Your task to perform on an android device: Open the map Image 0: 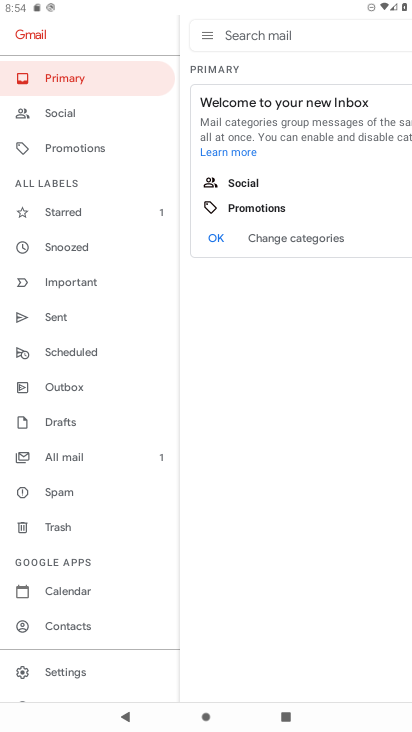
Step 0: press home button
Your task to perform on an android device: Open the map Image 1: 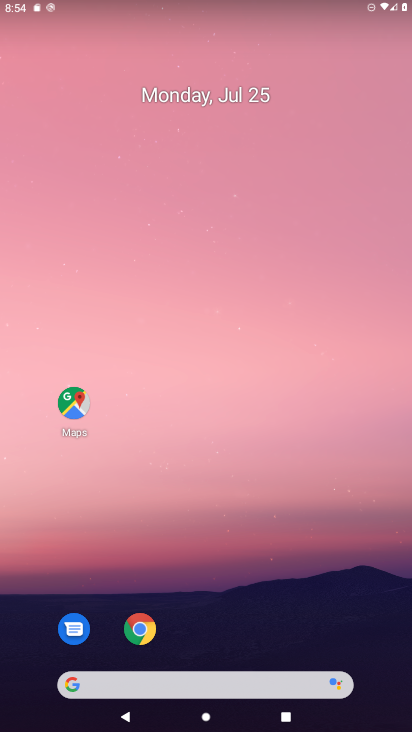
Step 1: click (67, 405)
Your task to perform on an android device: Open the map Image 2: 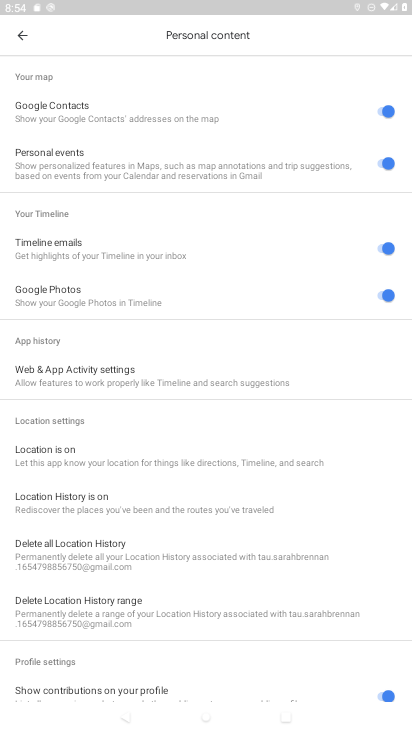
Step 2: click (21, 35)
Your task to perform on an android device: Open the map Image 3: 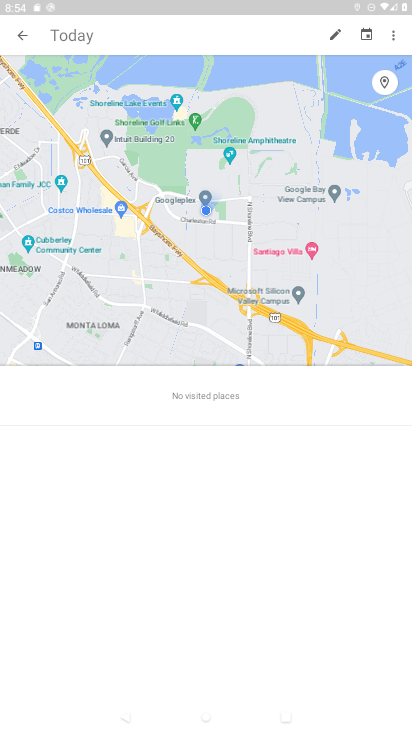
Step 3: task complete